Your task to perform on an android device: toggle wifi Image 0: 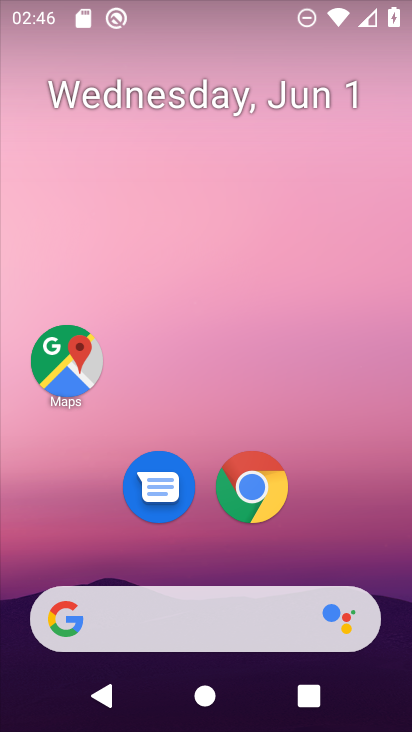
Step 0: drag from (312, 532) to (322, 173)
Your task to perform on an android device: toggle wifi Image 1: 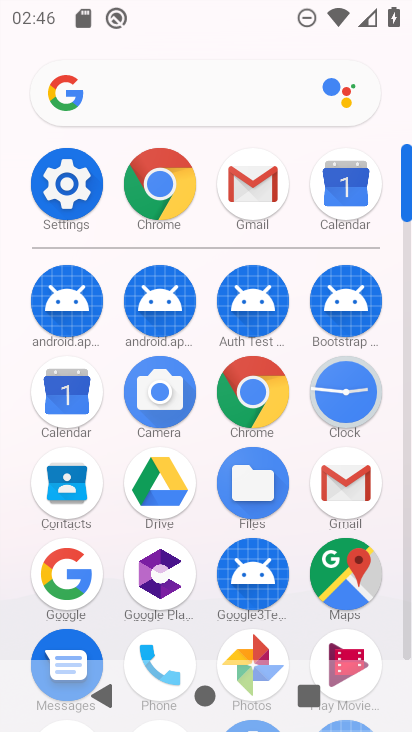
Step 1: click (51, 191)
Your task to perform on an android device: toggle wifi Image 2: 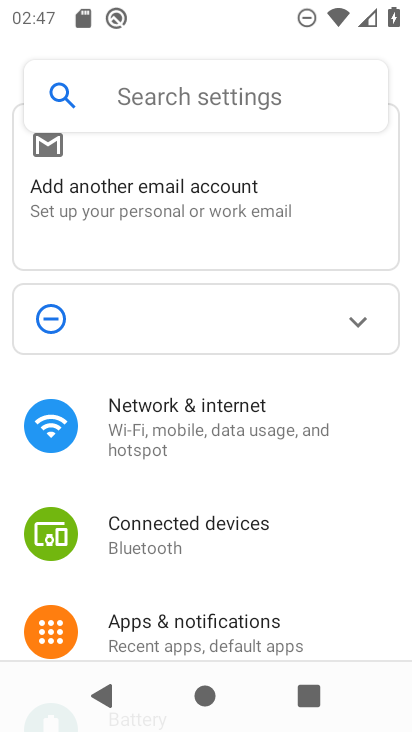
Step 2: click (231, 416)
Your task to perform on an android device: toggle wifi Image 3: 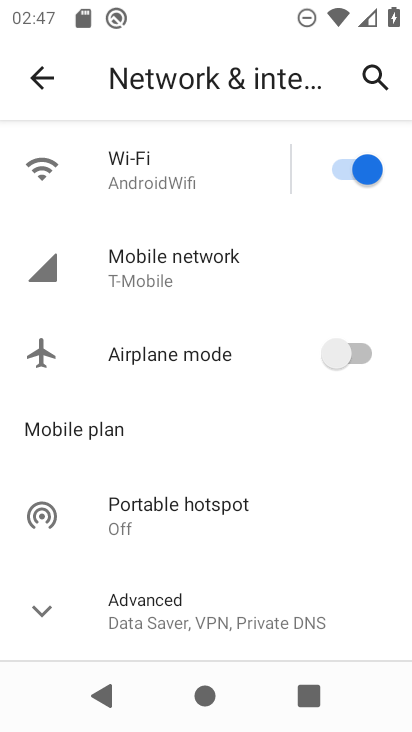
Step 3: click (361, 163)
Your task to perform on an android device: toggle wifi Image 4: 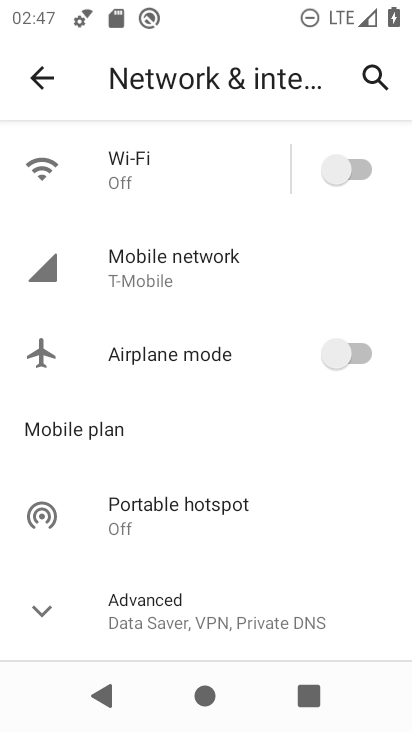
Step 4: task complete